Your task to perform on an android device: move a message to another label in the gmail app Image 0: 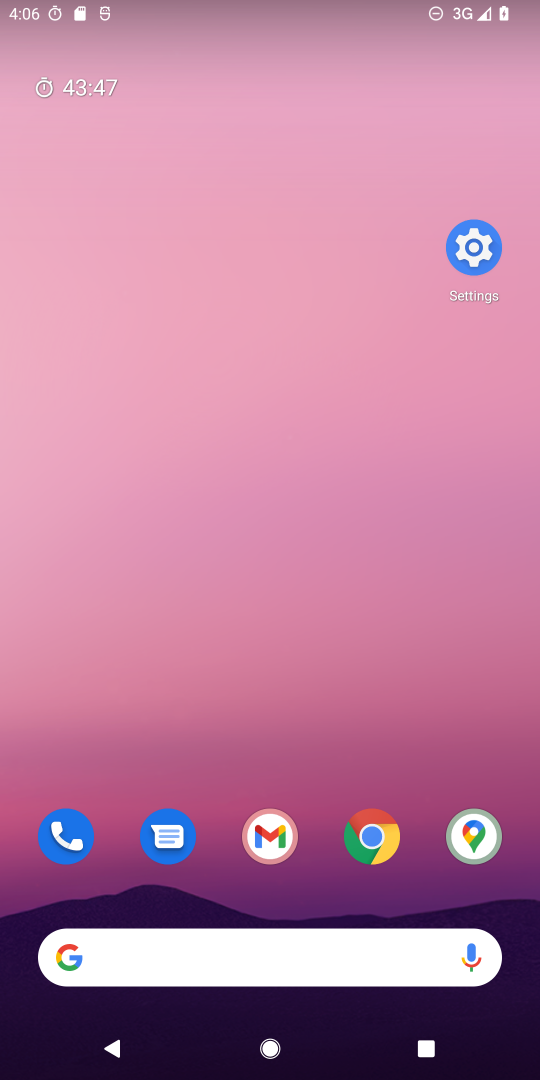
Step 0: click (247, 821)
Your task to perform on an android device: move a message to another label in the gmail app Image 1: 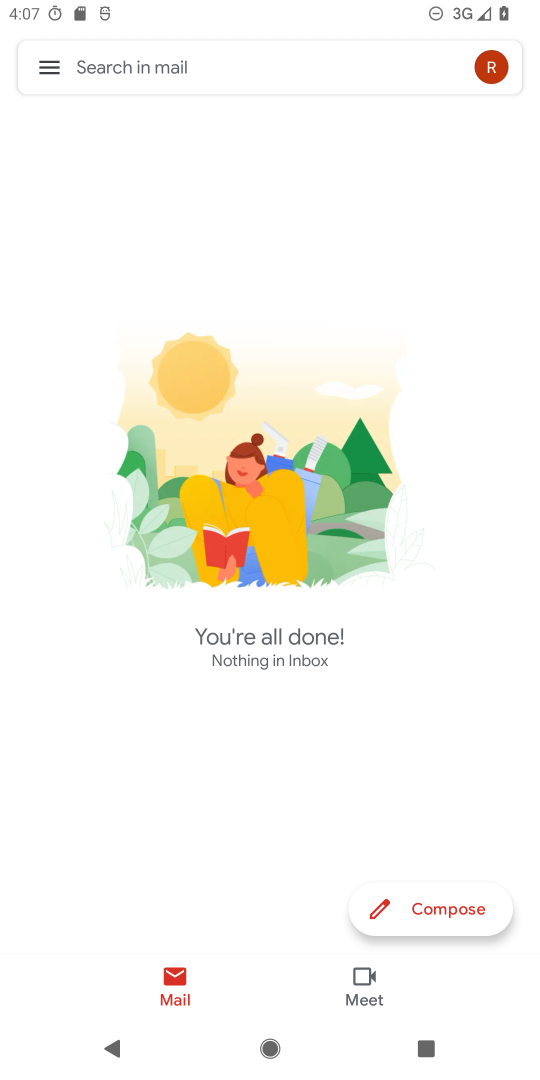
Step 1: task complete